Your task to perform on an android device: Open sound settings Image 0: 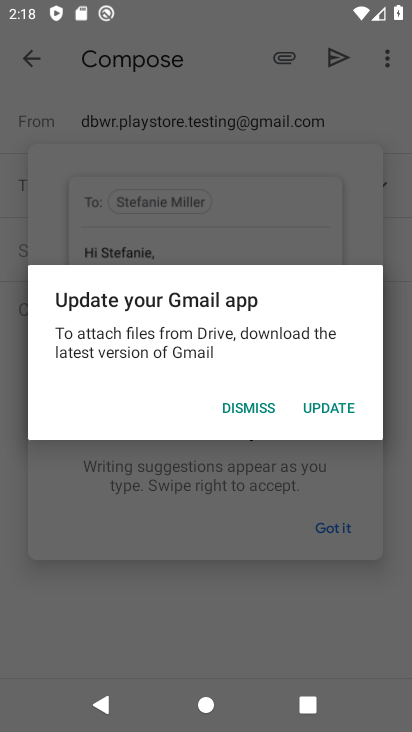
Step 0: press home button
Your task to perform on an android device: Open sound settings Image 1: 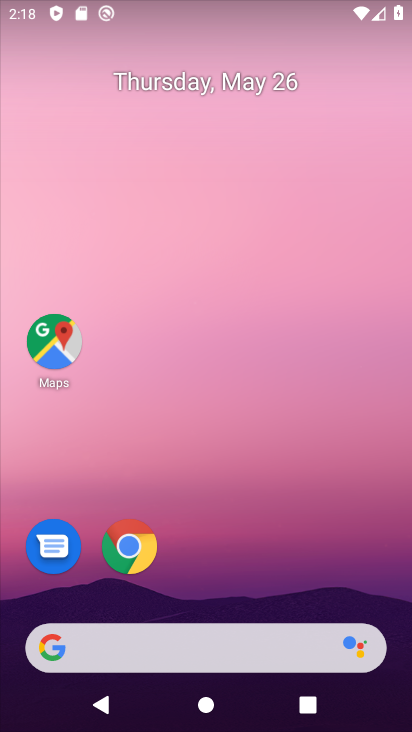
Step 1: drag from (393, 654) to (391, 194)
Your task to perform on an android device: Open sound settings Image 2: 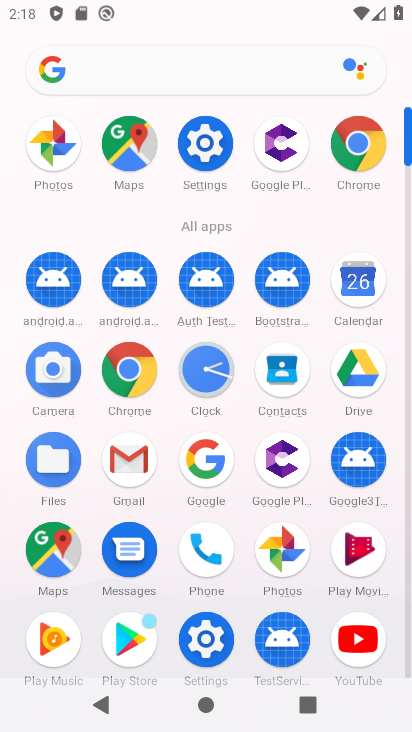
Step 2: click (192, 639)
Your task to perform on an android device: Open sound settings Image 3: 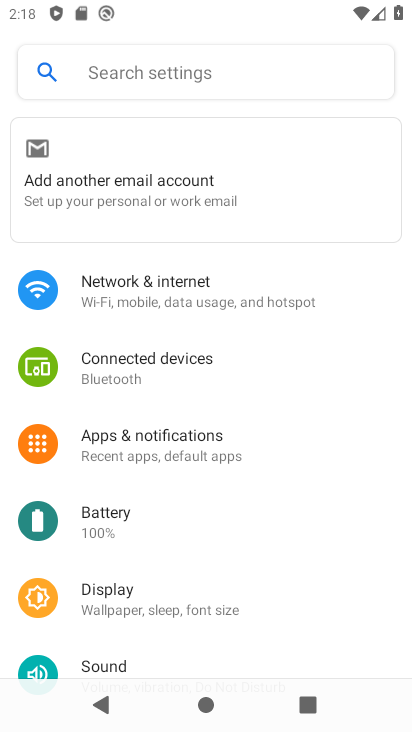
Step 3: click (94, 654)
Your task to perform on an android device: Open sound settings Image 4: 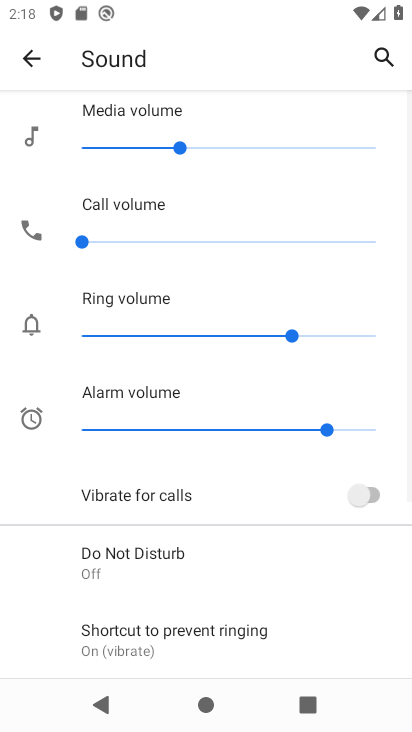
Step 4: task complete